Your task to perform on an android device: Check the news Image 0: 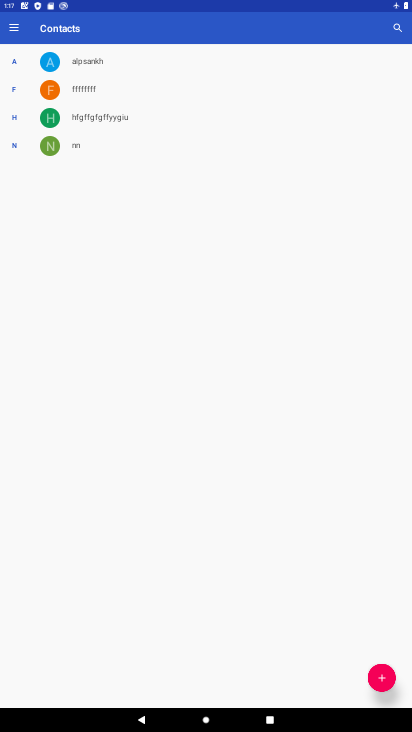
Step 0: press home button
Your task to perform on an android device: Check the news Image 1: 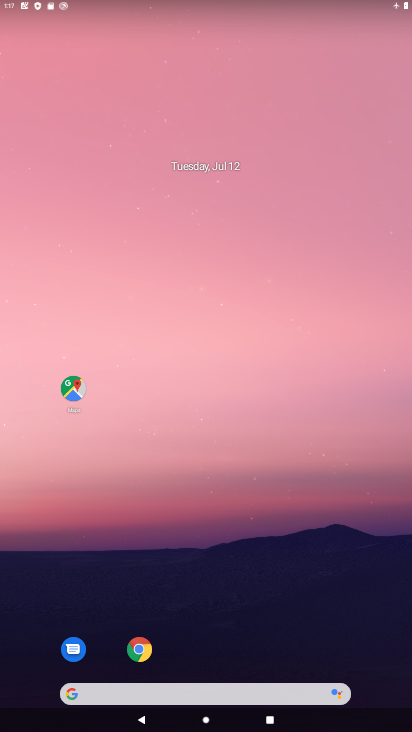
Step 1: drag from (238, 626) to (257, 62)
Your task to perform on an android device: Check the news Image 2: 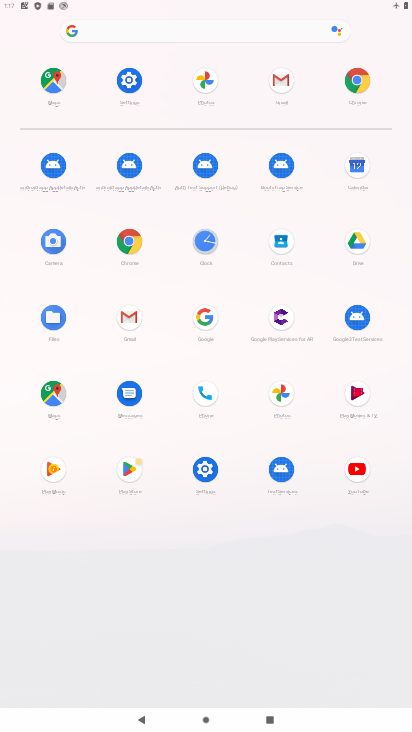
Step 2: click (137, 88)
Your task to perform on an android device: Check the news Image 3: 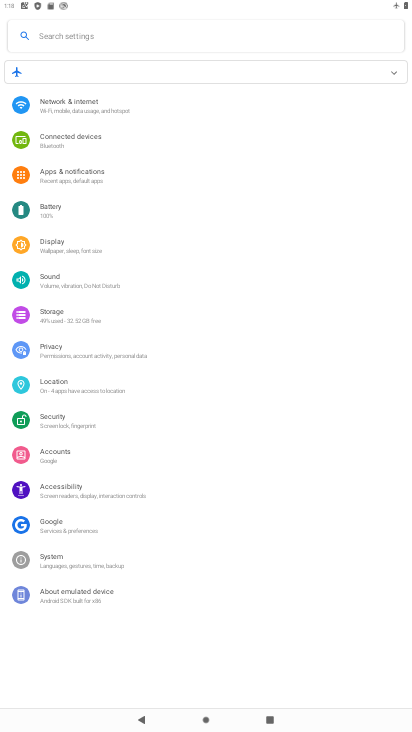
Step 3: press home button
Your task to perform on an android device: Check the news Image 4: 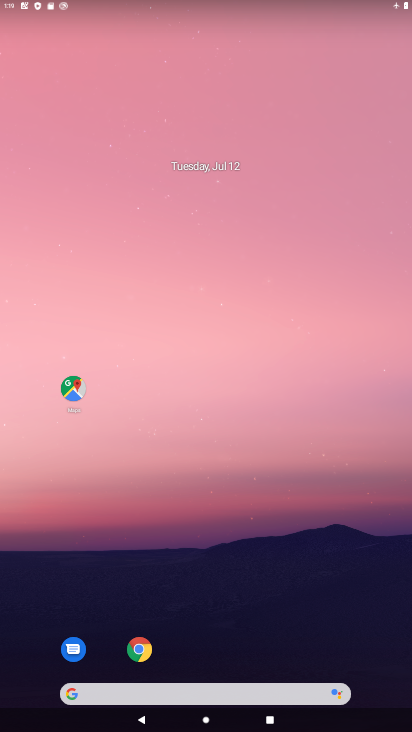
Step 4: drag from (267, 642) to (225, 126)
Your task to perform on an android device: Check the news Image 5: 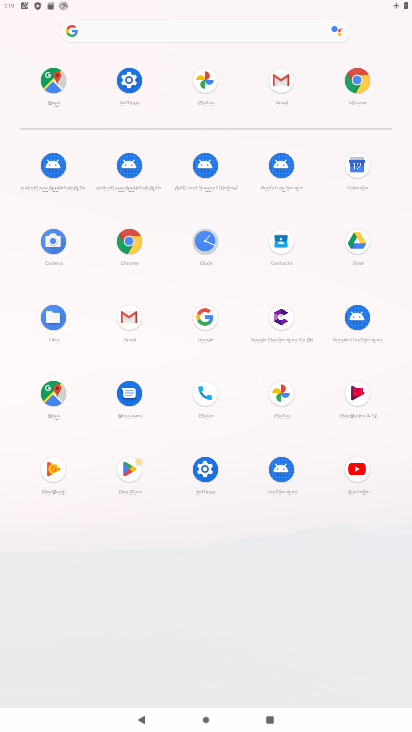
Step 5: click (172, 41)
Your task to perform on an android device: Check the news Image 6: 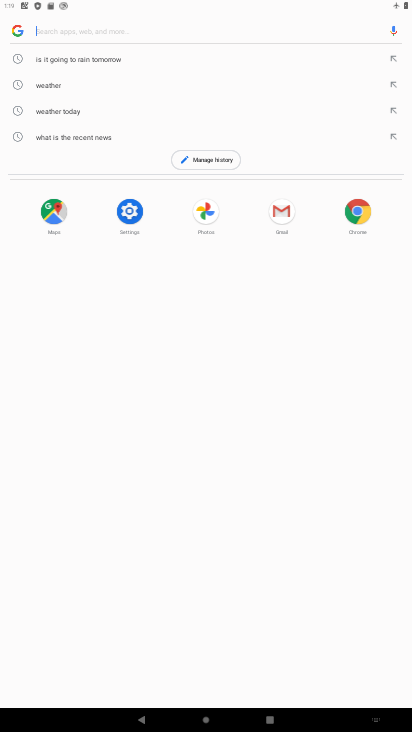
Step 6: click (138, 133)
Your task to perform on an android device: Check the news Image 7: 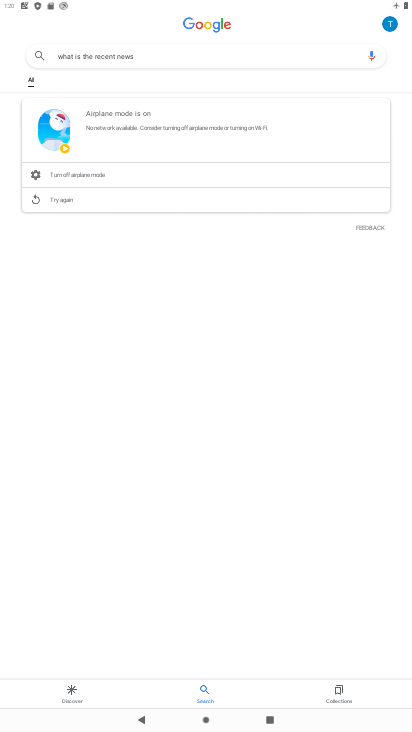
Step 7: task complete